Your task to perform on an android device: Search for pizza restaurants on Maps Image 0: 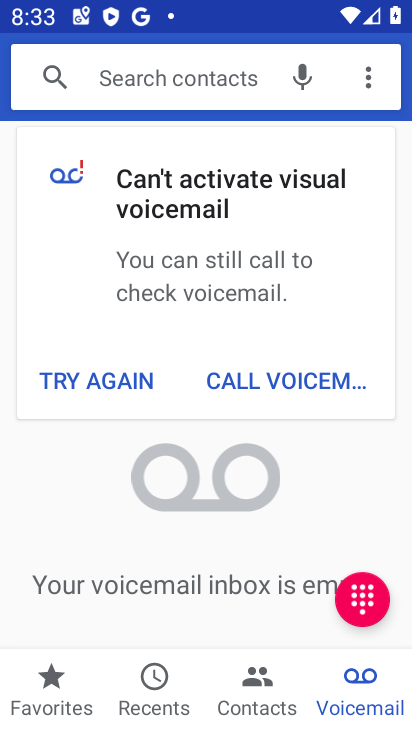
Step 0: press home button
Your task to perform on an android device: Search for pizza restaurants on Maps Image 1: 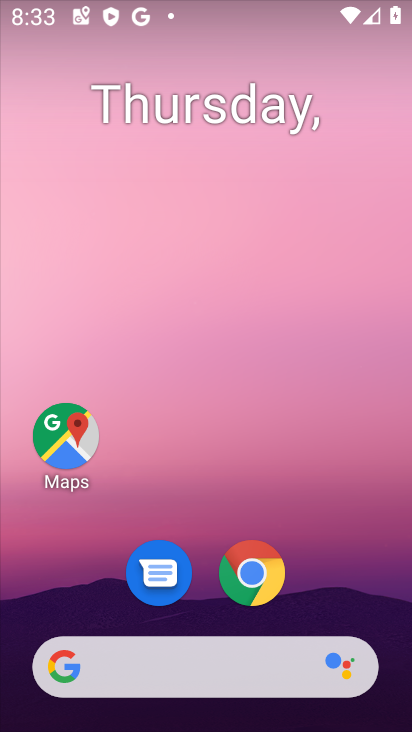
Step 1: drag from (338, 579) to (335, 185)
Your task to perform on an android device: Search for pizza restaurants on Maps Image 2: 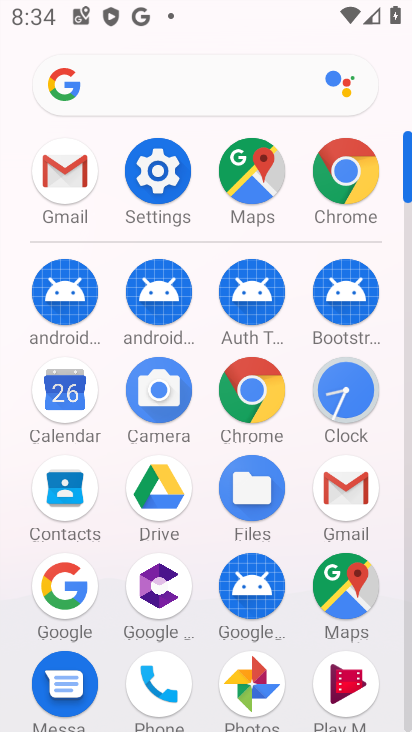
Step 2: click (334, 609)
Your task to perform on an android device: Search for pizza restaurants on Maps Image 3: 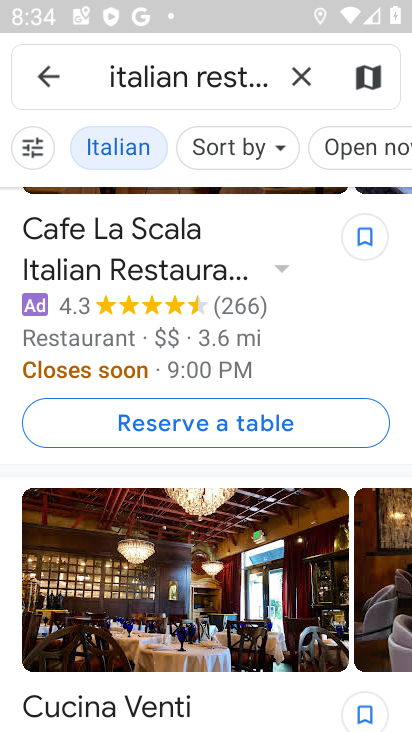
Step 3: click (305, 78)
Your task to perform on an android device: Search for pizza restaurants on Maps Image 4: 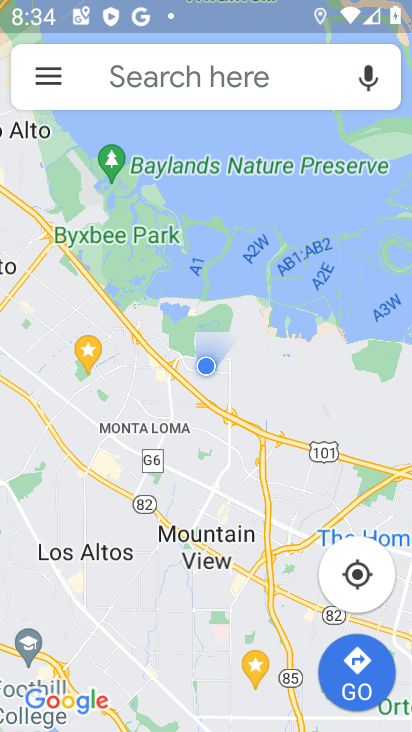
Step 4: click (158, 73)
Your task to perform on an android device: Search for pizza restaurants on Maps Image 5: 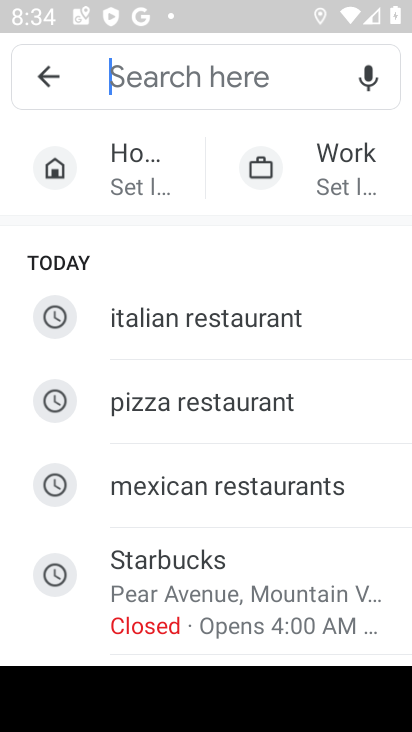
Step 5: click (176, 403)
Your task to perform on an android device: Search for pizza restaurants on Maps Image 6: 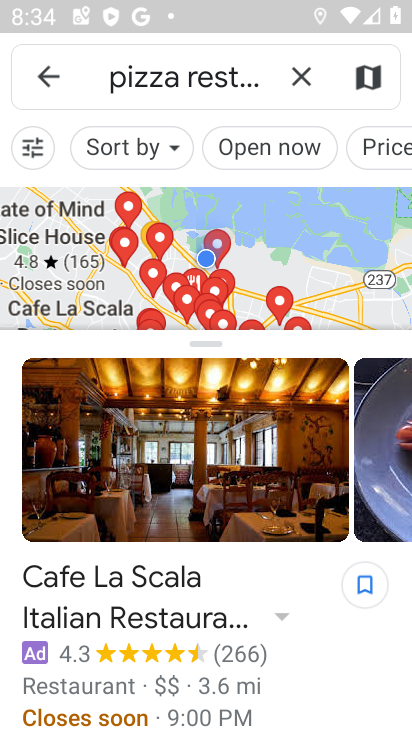
Step 6: task complete